Your task to perform on an android device: turn off data saver in the chrome app Image 0: 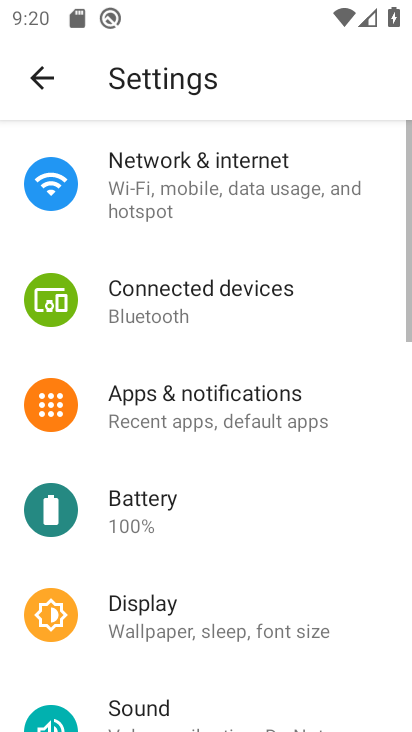
Step 0: press home button
Your task to perform on an android device: turn off data saver in the chrome app Image 1: 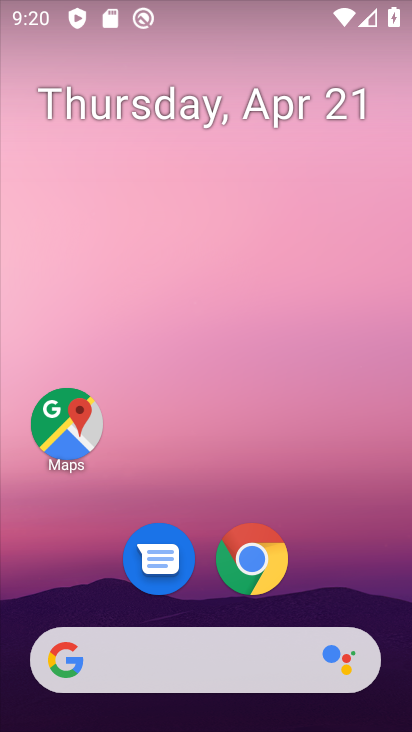
Step 1: click (262, 554)
Your task to perform on an android device: turn off data saver in the chrome app Image 2: 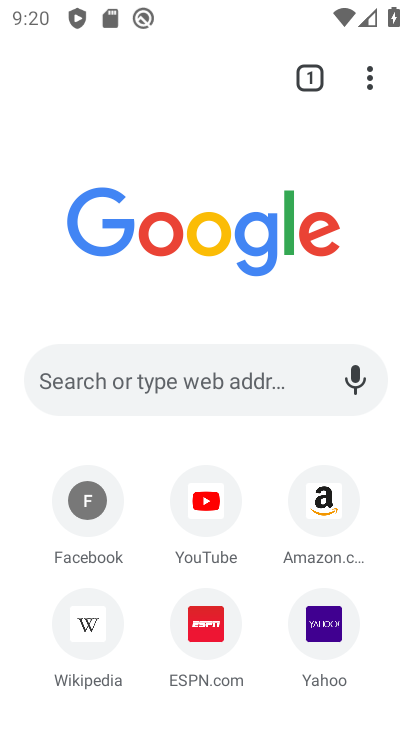
Step 2: click (371, 87)
Your task to perform on an android device: turn off data saver in the chrome app Image 3: 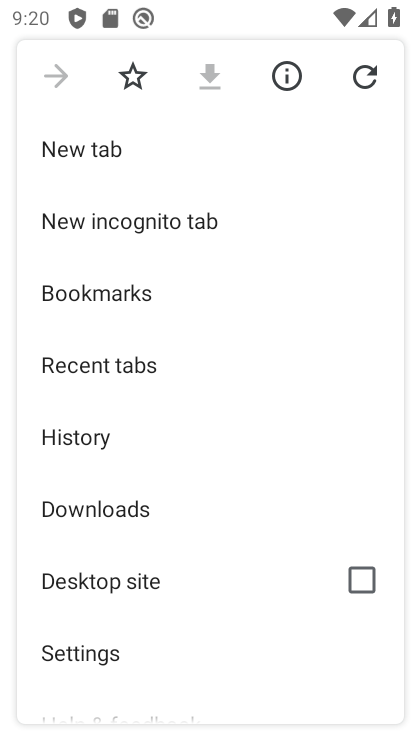
Step 3: drag from (218, 576) to (175, 223)
Your task to perform on an android device: turn off data saver in the chrome app Image 4: 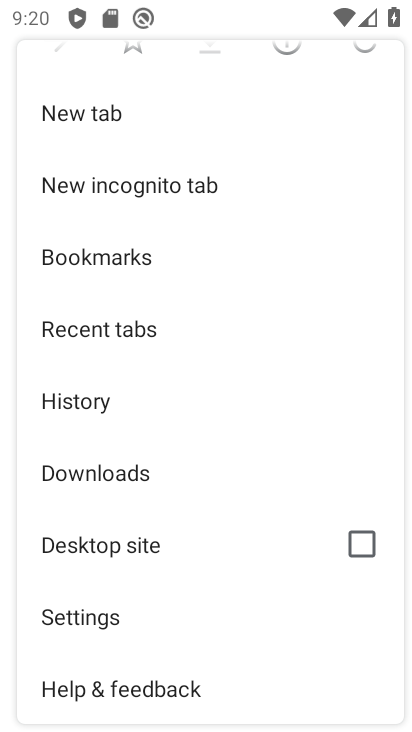
Step 4: click (72, 589)
Your task to perform on an android device: turn off data saver in the chrome app Image 5: 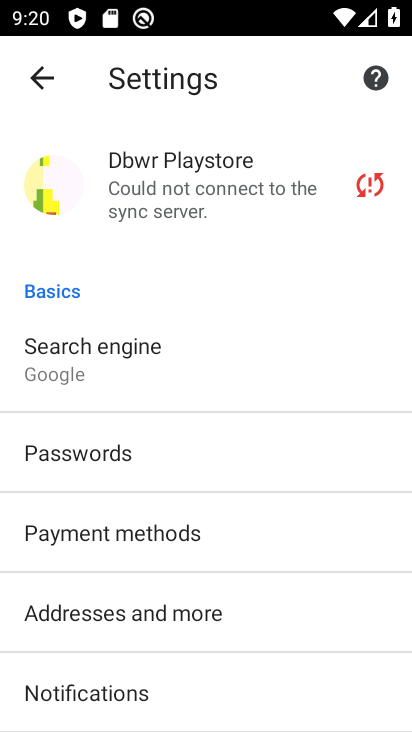
Step 5: drag from (199, 671) to (183, 157)
Your task to perform on an android device: turn off data saver in the chrome app Image 6: 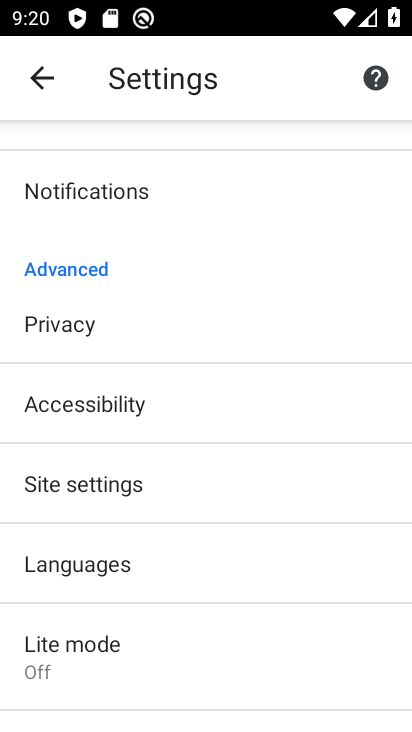
Step 6: click (138, 649)
Your task to perform on an android device: turn off data saver in the chrome app Image 7: 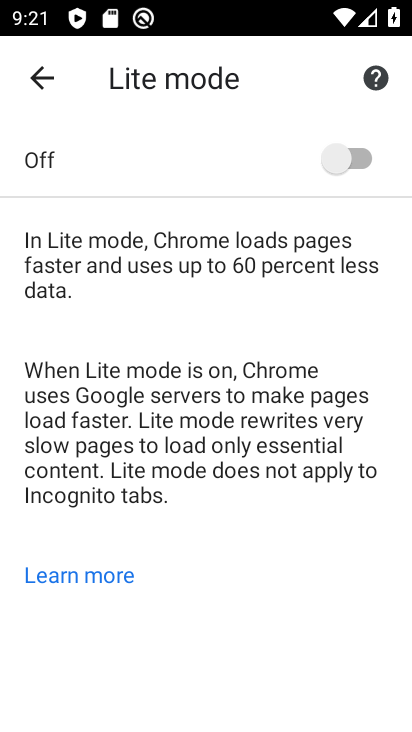
Step 7: task complete